Your task to perform on an android device: open app "Gboard" Image 0: 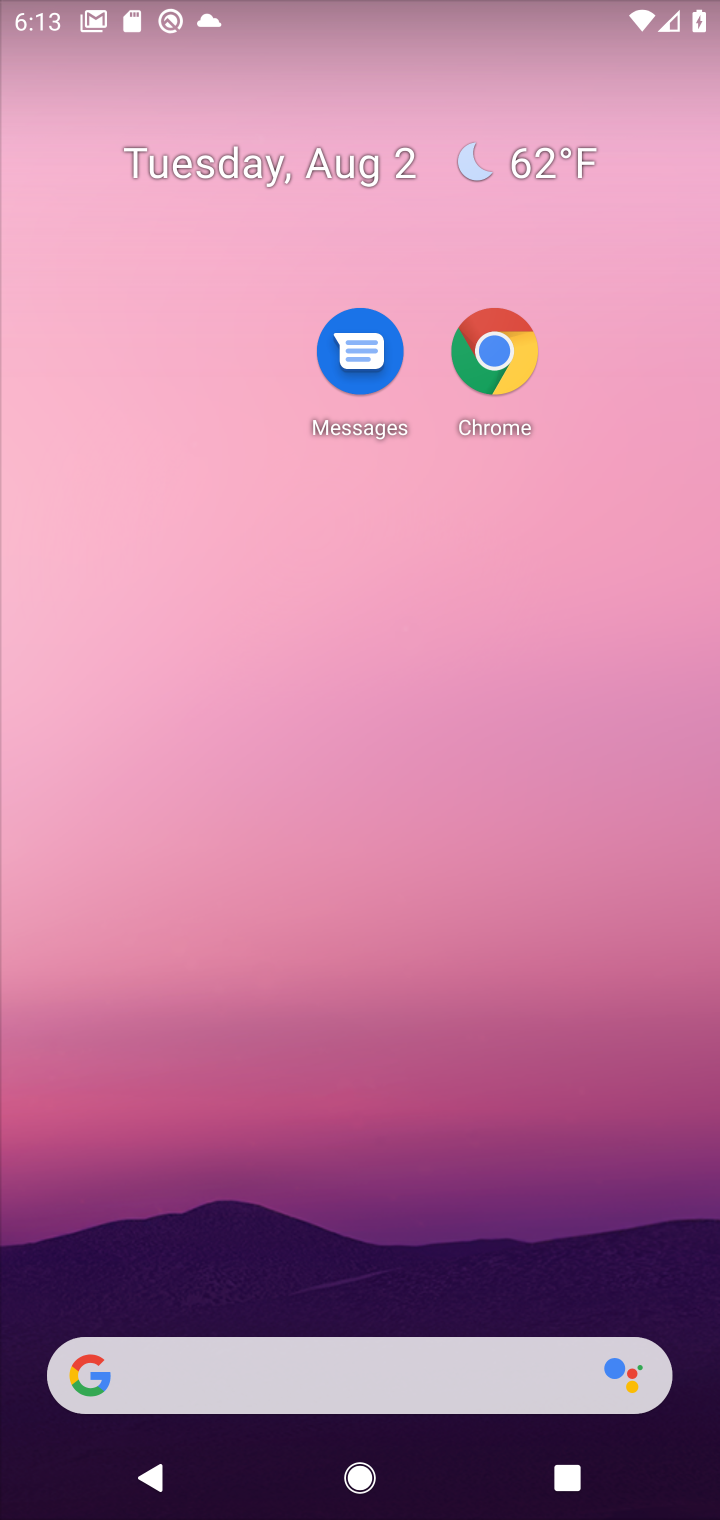
Step 0: drag from (322, 1233) to (664, 233)
Your task to perform on an android device: open app "Gboard" Image 1: 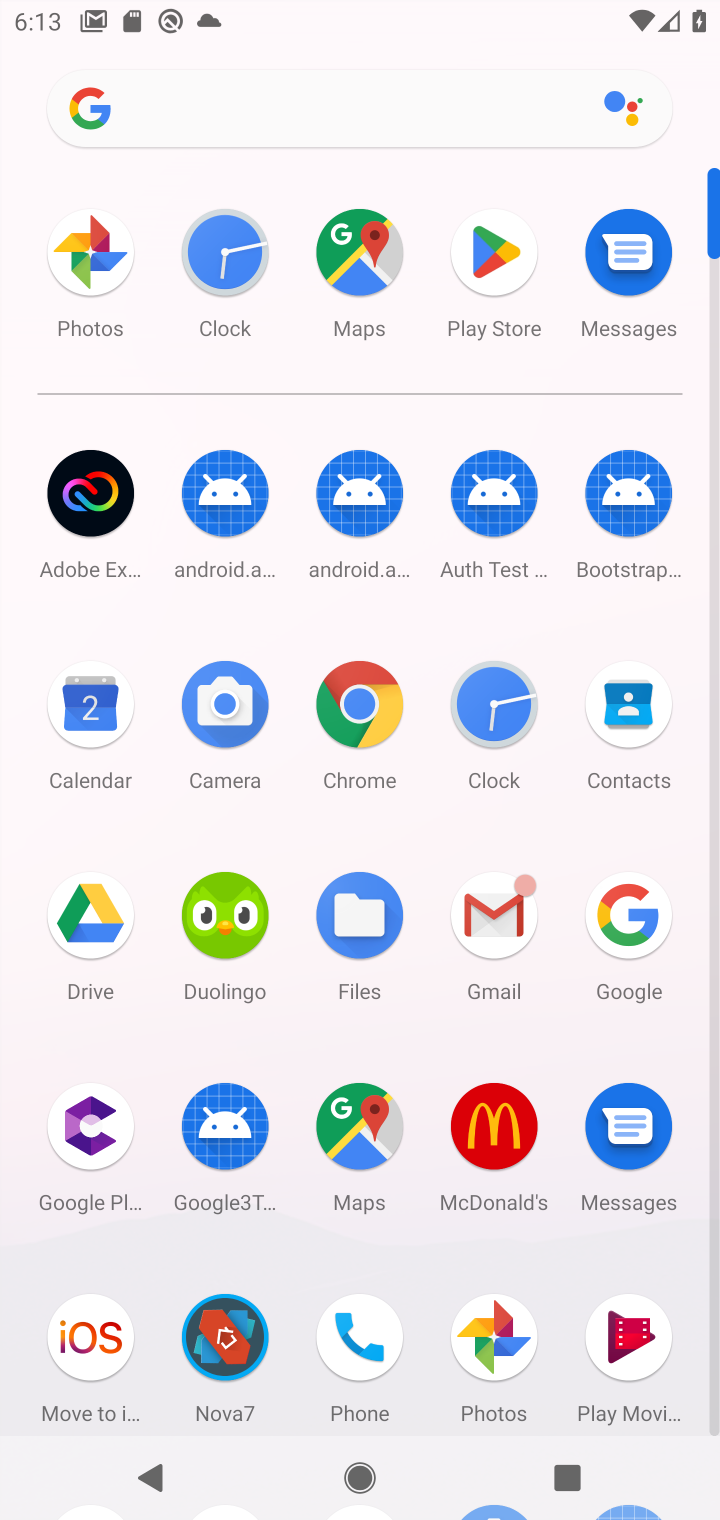
Step 1: click (491, 249)
Your task to perform on an android device: open app "Gboard" Image 2: 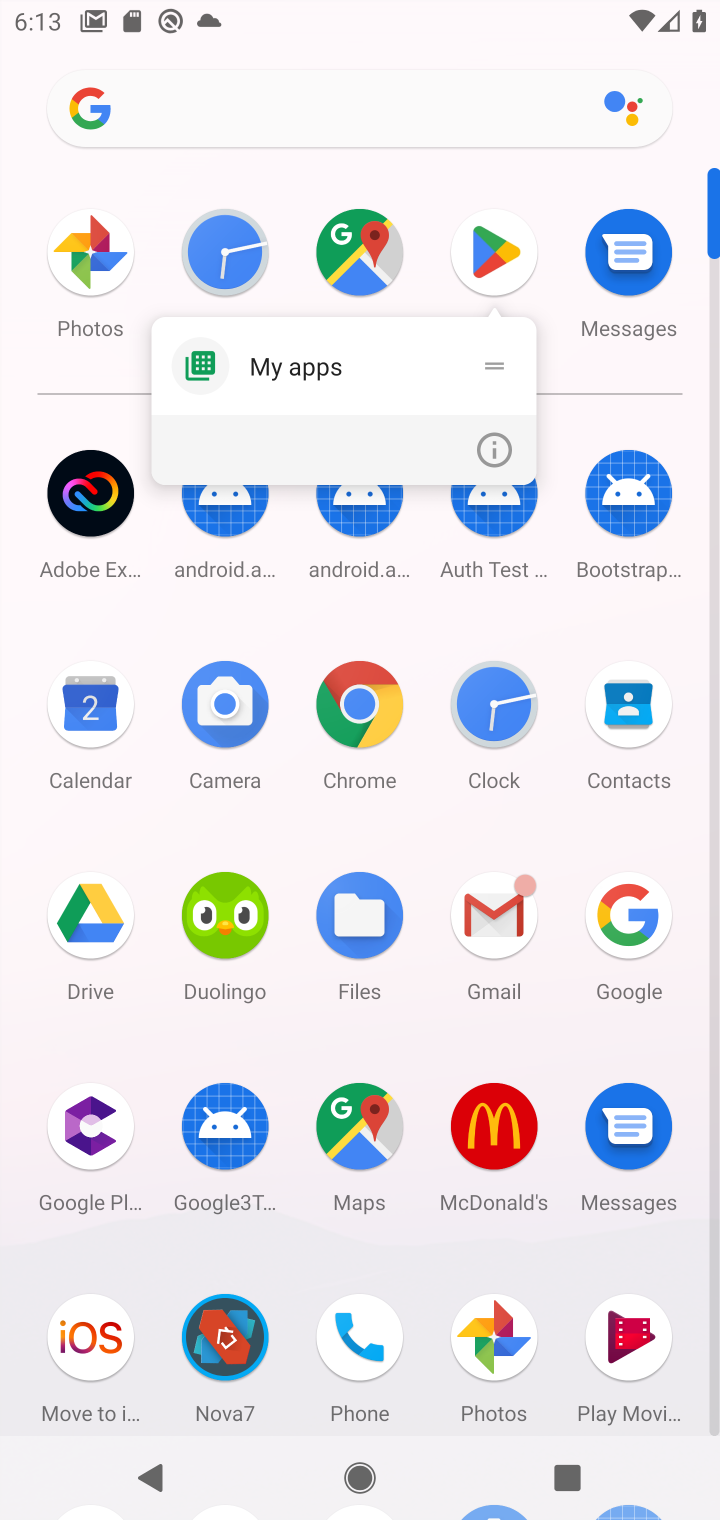
Step 2: click (499, 431)
Your task to perform on an android device: open app "Gboard" Image 3: 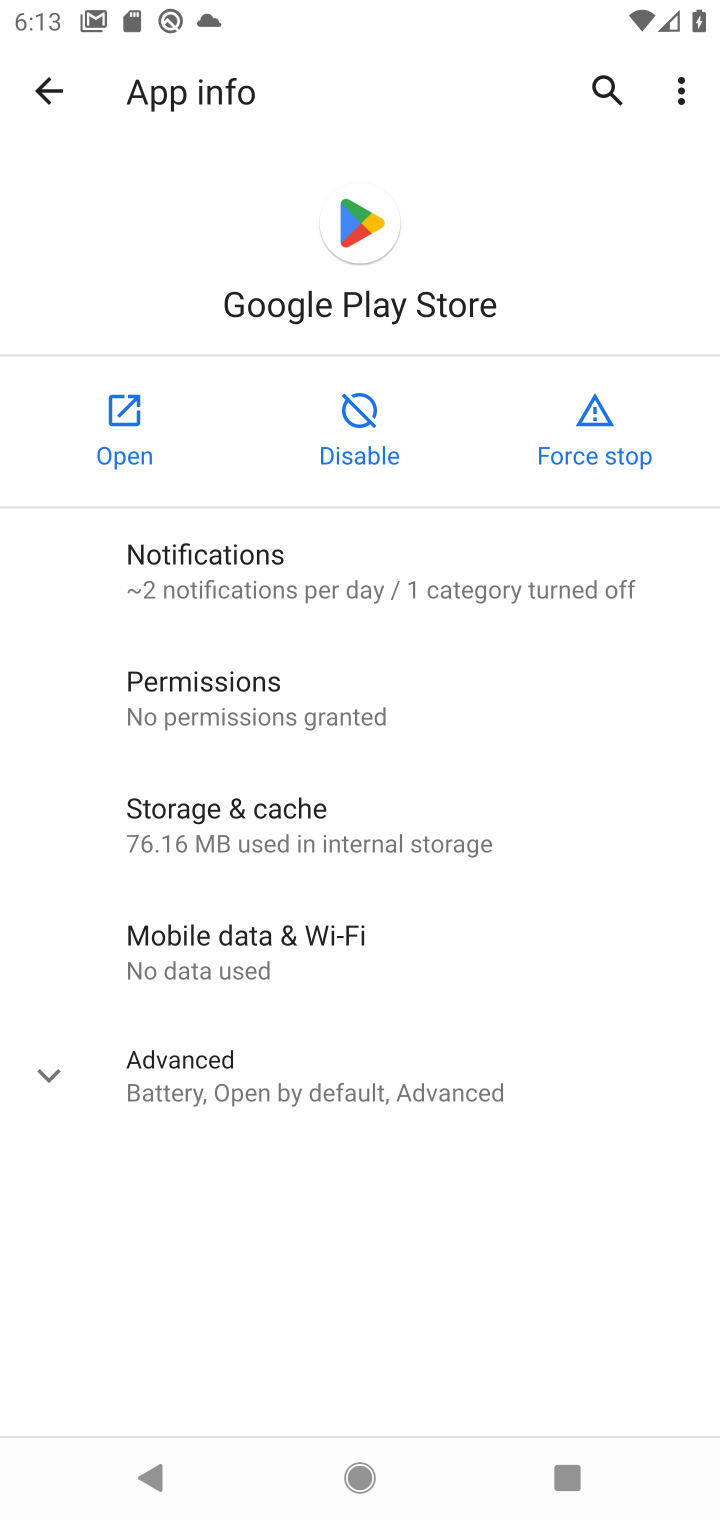
Step 3: click (111, 419)
Your task to perform on an android device: open app "Gboard" Image 4: 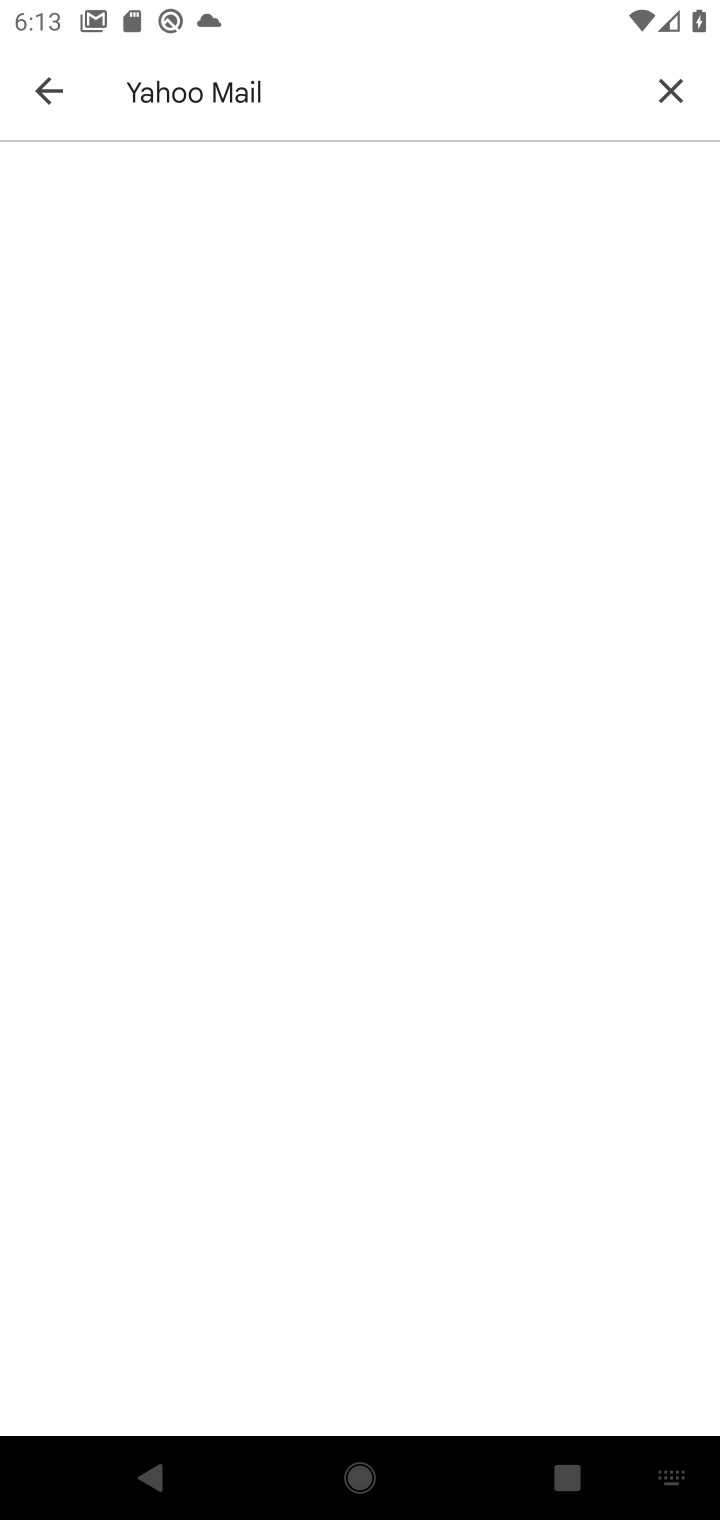
Step 4: drag from (354, 1072) to (478, 283)
Your task to perform on an android device: open app "Gboard" Image 5: 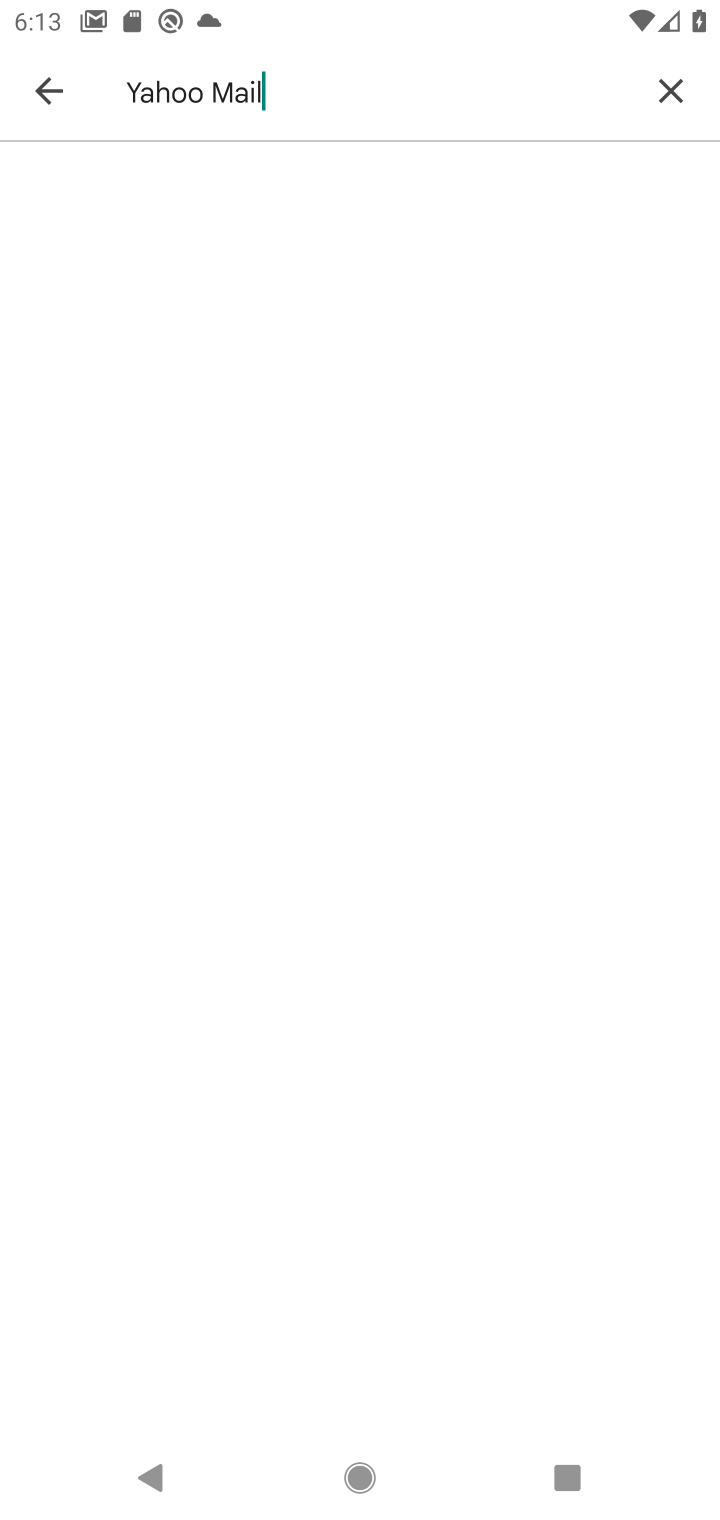
Step 5: drag from (386, 340) to (342, 758)
Your task to perform on an android device: open app "Gboard" Image 6: 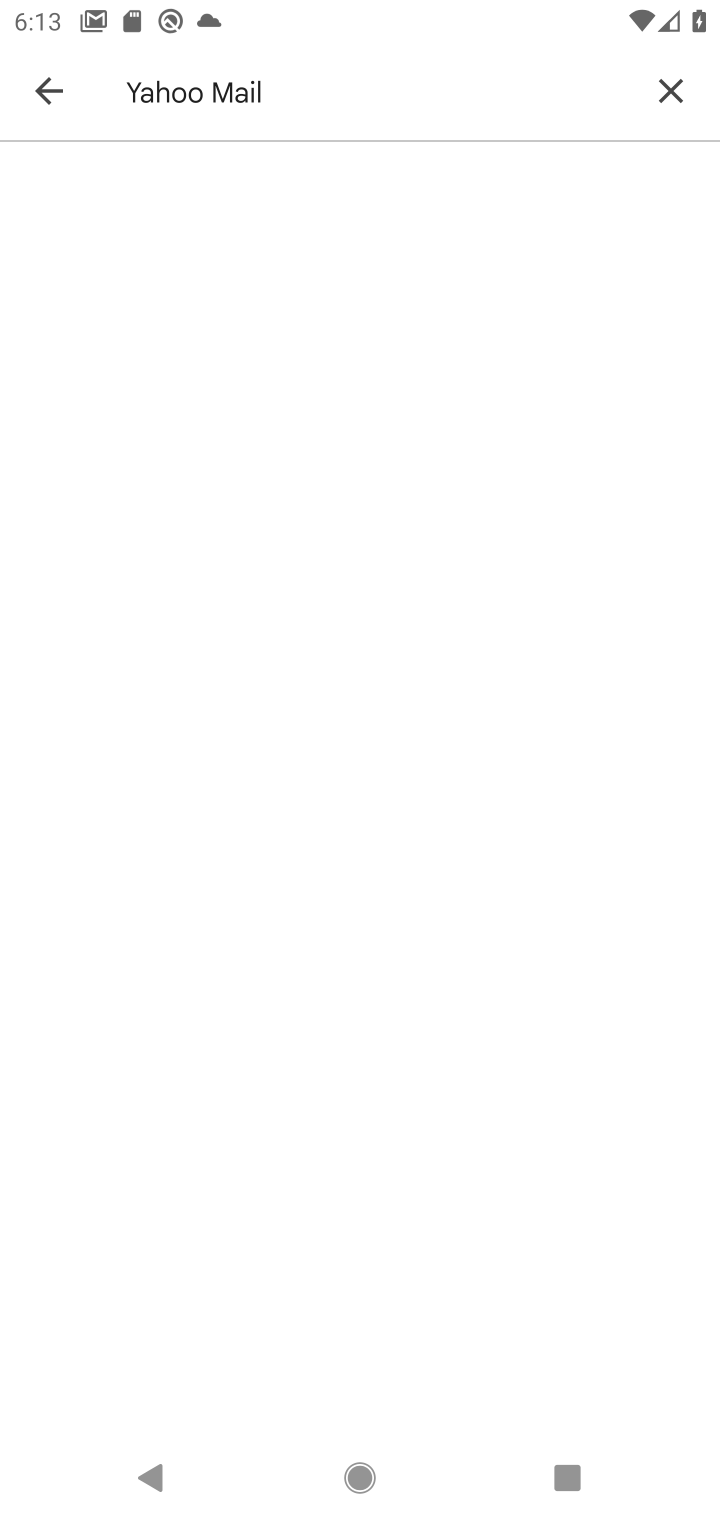
Step 6: press home button
Your task to perform on an android device: open app "Gboard" Image 7: 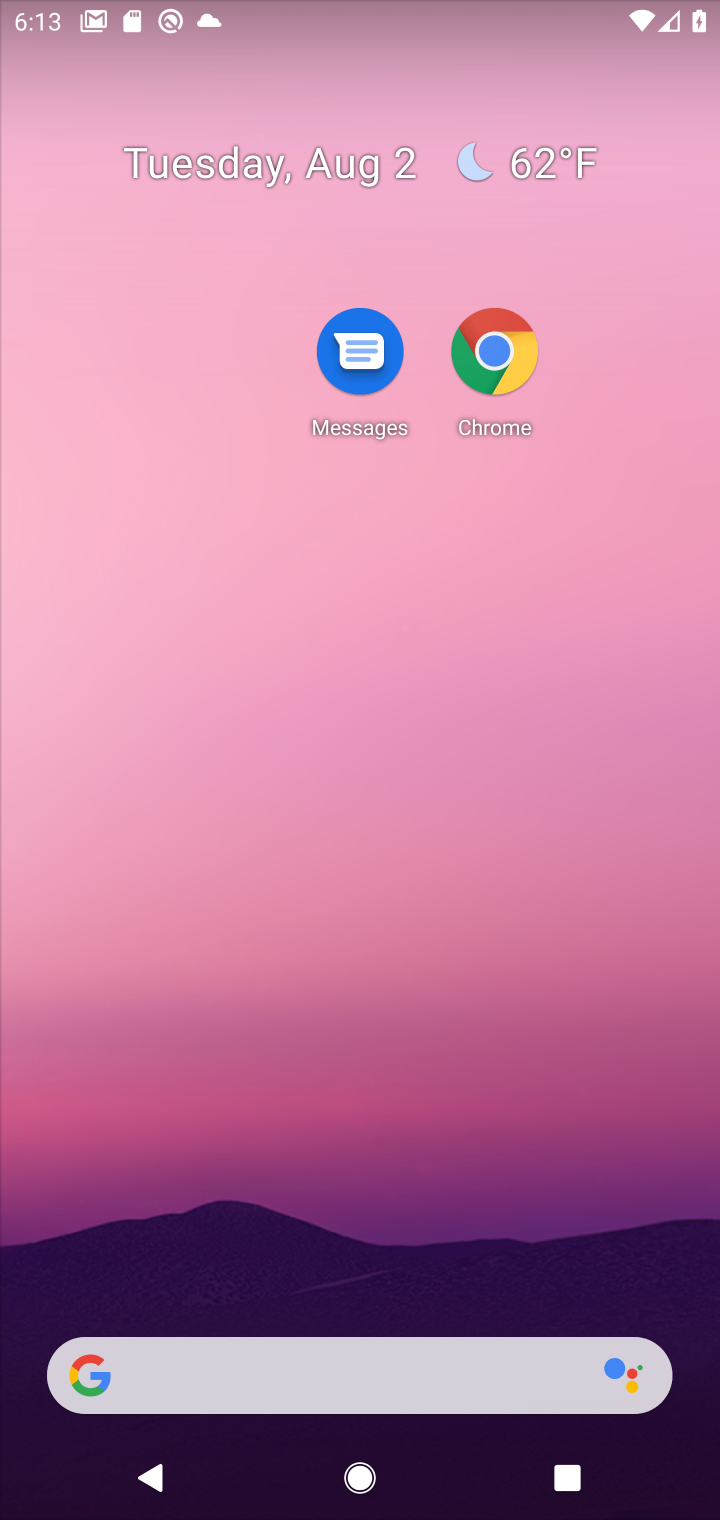
Step 7: drag from (267, 994) to (310, 0)
Your task to perform on an android device: open app "Gboard" Image 8: 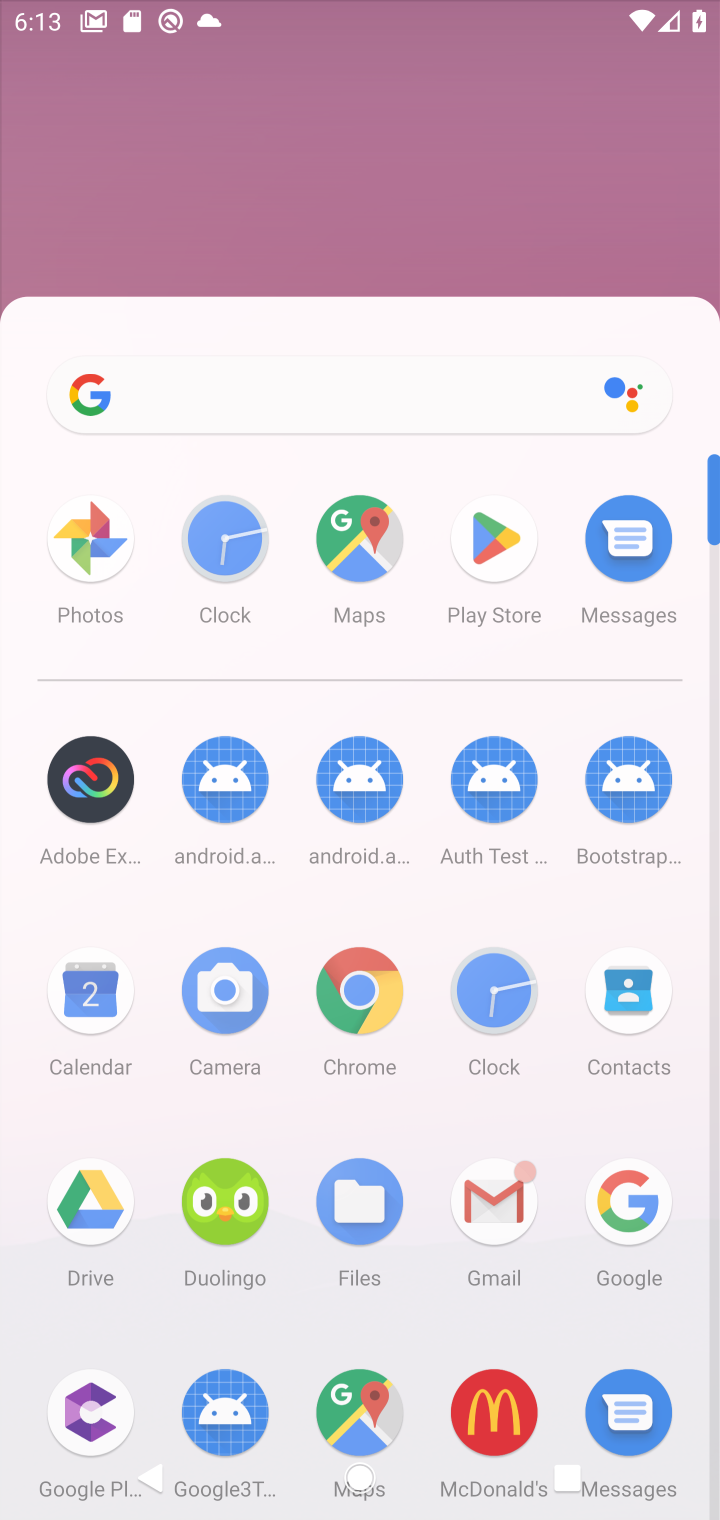
Step 8: drag from (309, 1134) to (305, 17)
Your task to perform on an android device: open app "Gboard" Image 9: 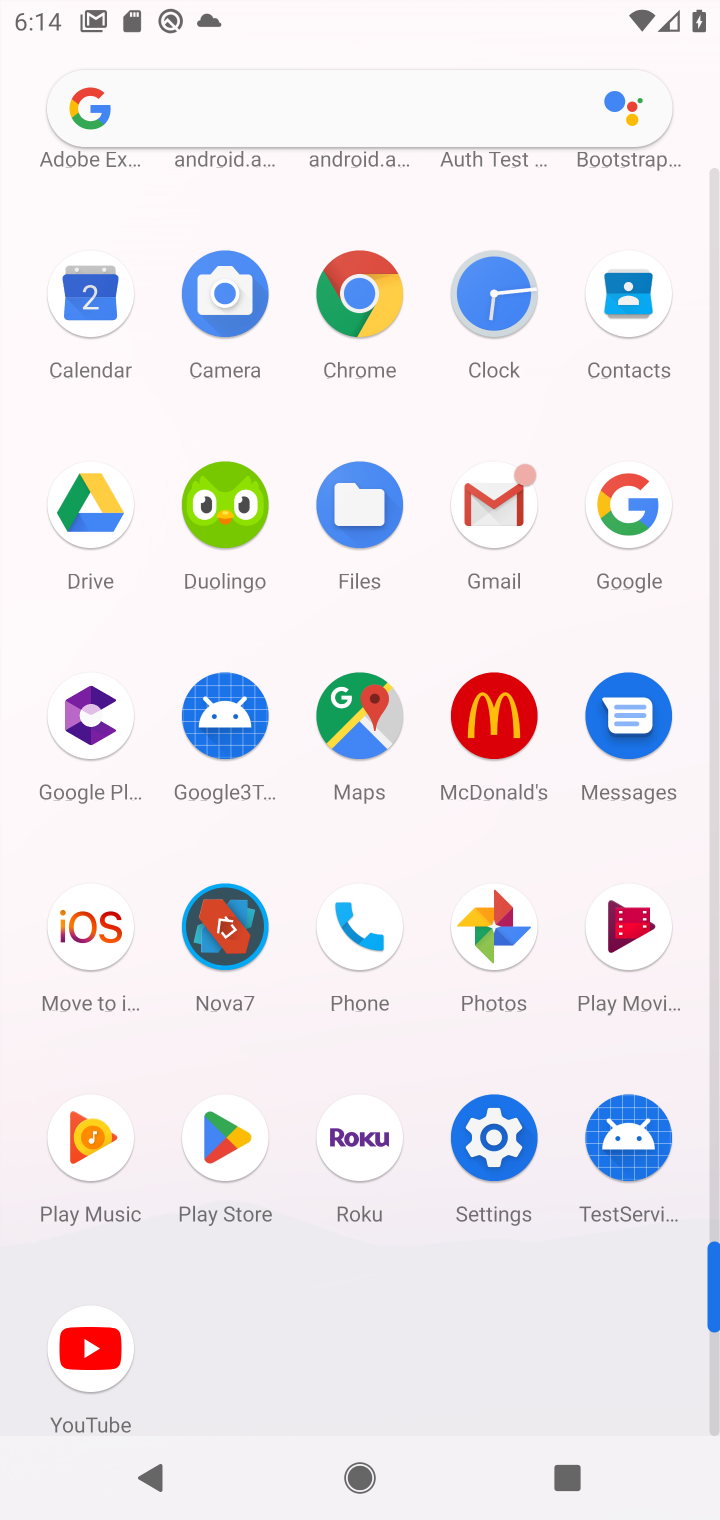
Step 9: click (201, 1149)
Your task to perform on an android device: open app "Gboard" Image 10: 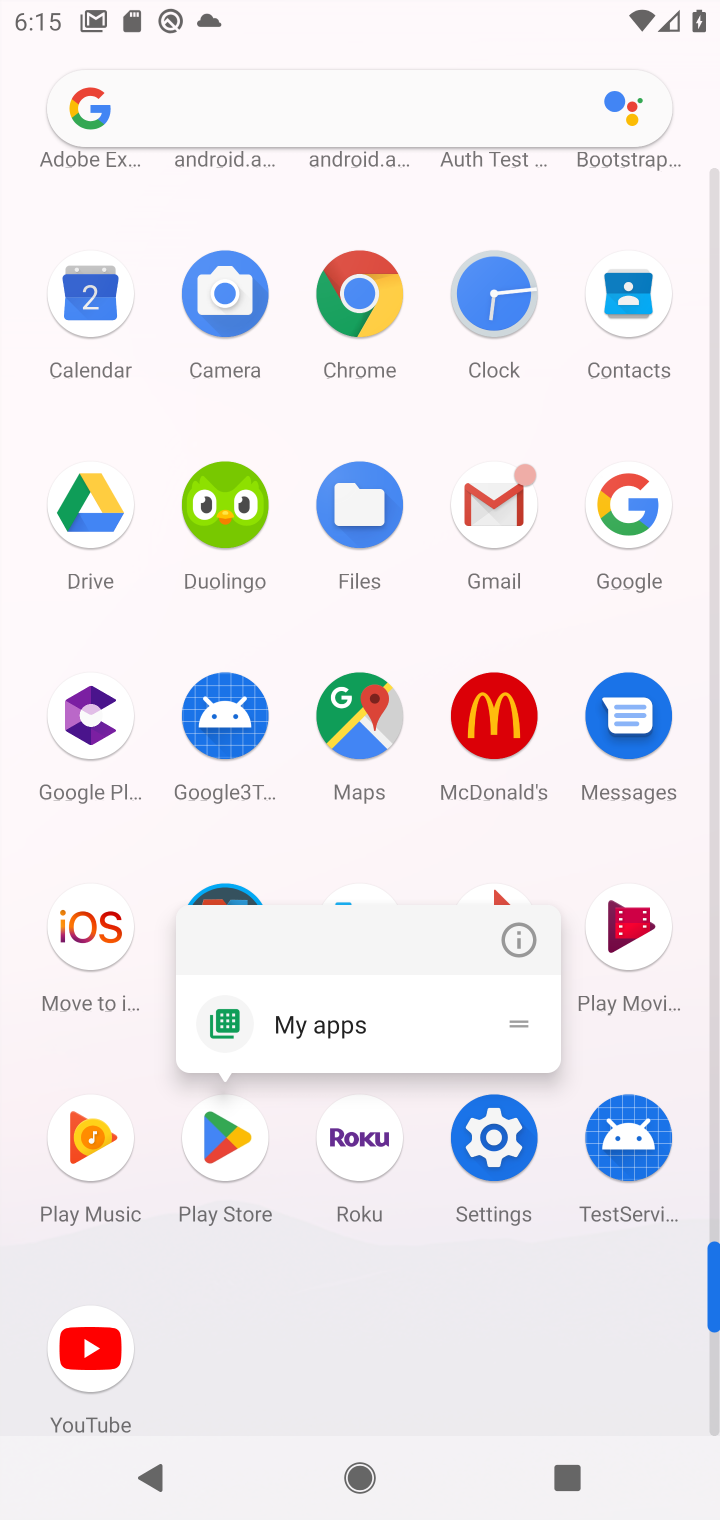
Step 10: click (541, 935)
Your task to perform on an android device: open app "Gboard" Image 11: 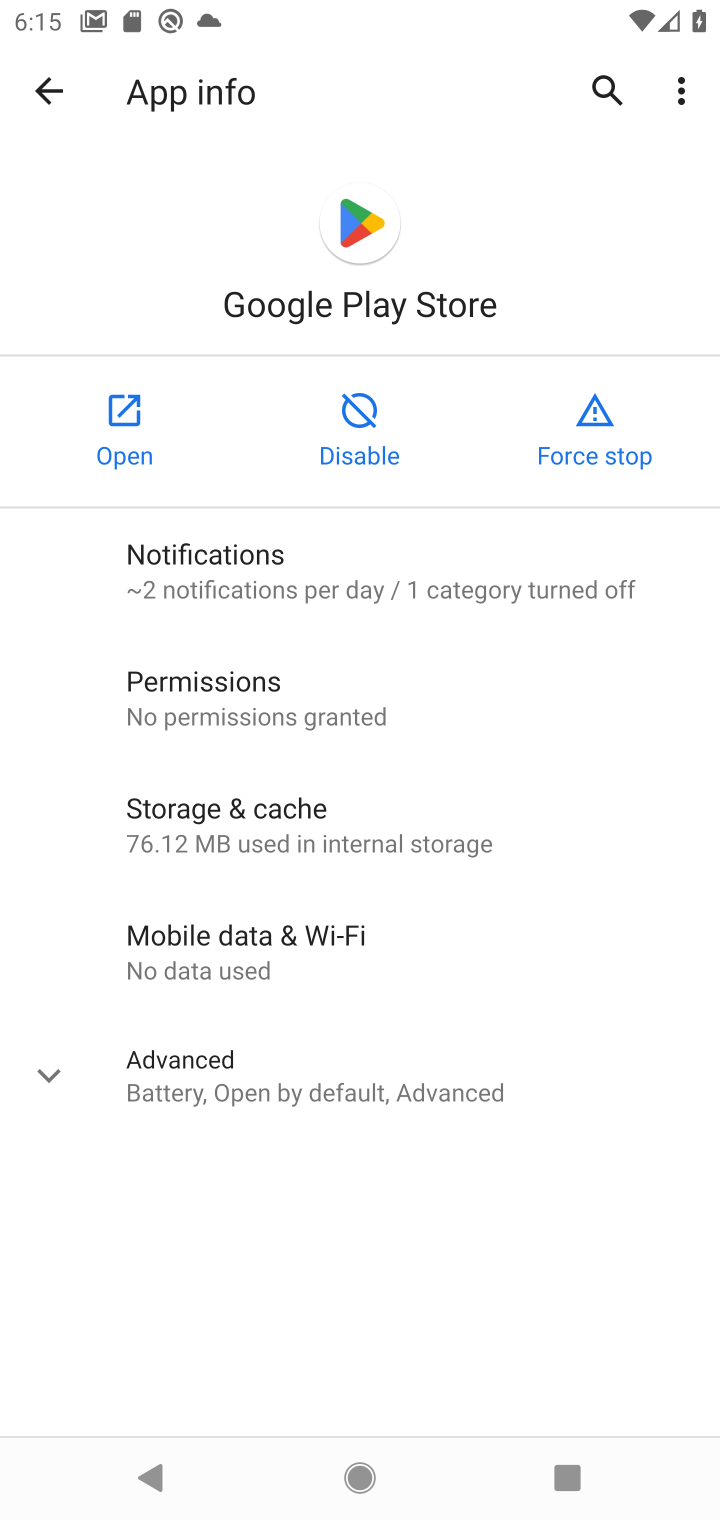
Step 11: click (117, 439)
Your task to perform on an android device: open app "Gboard" Image 12: 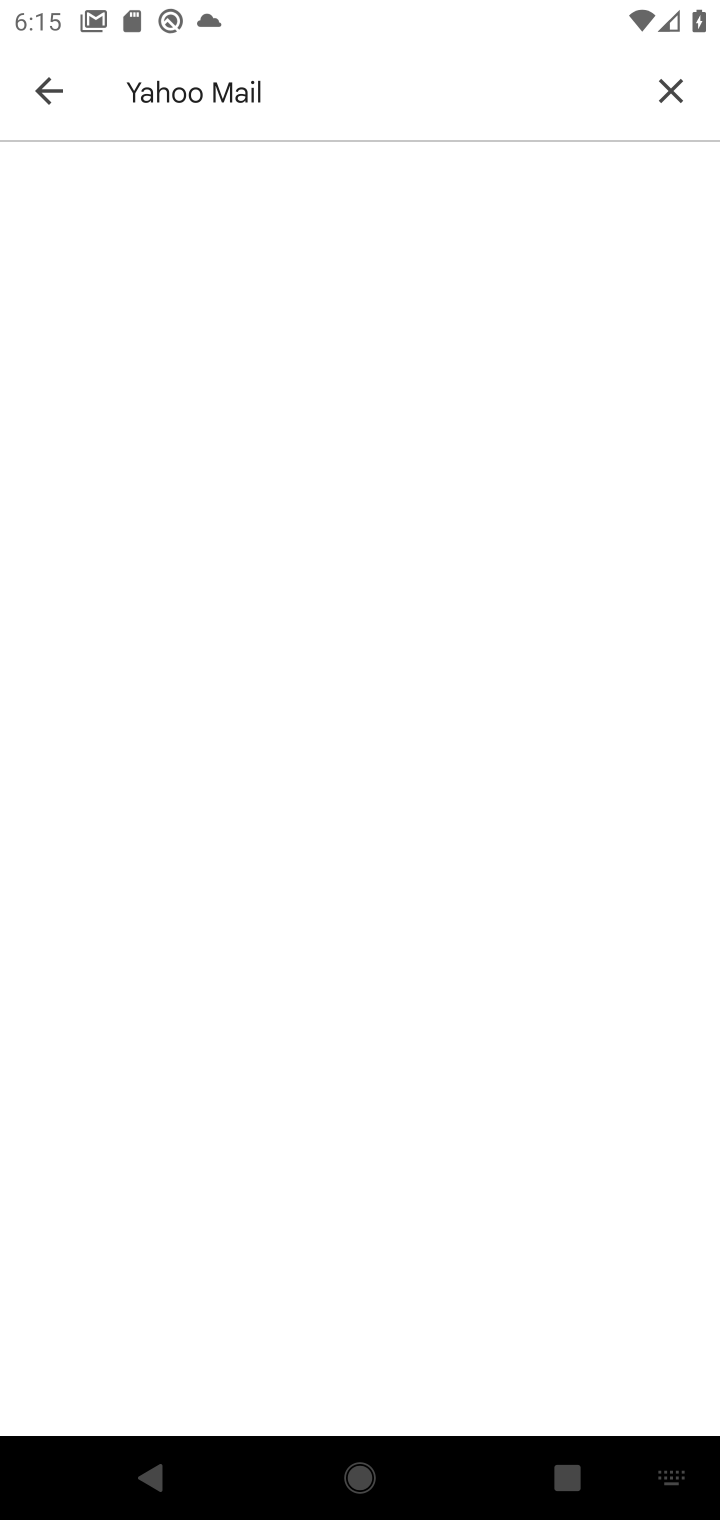
Step 12: click (642, 90)
Your task to perform on an android device: open app "Gboard" Image 13: 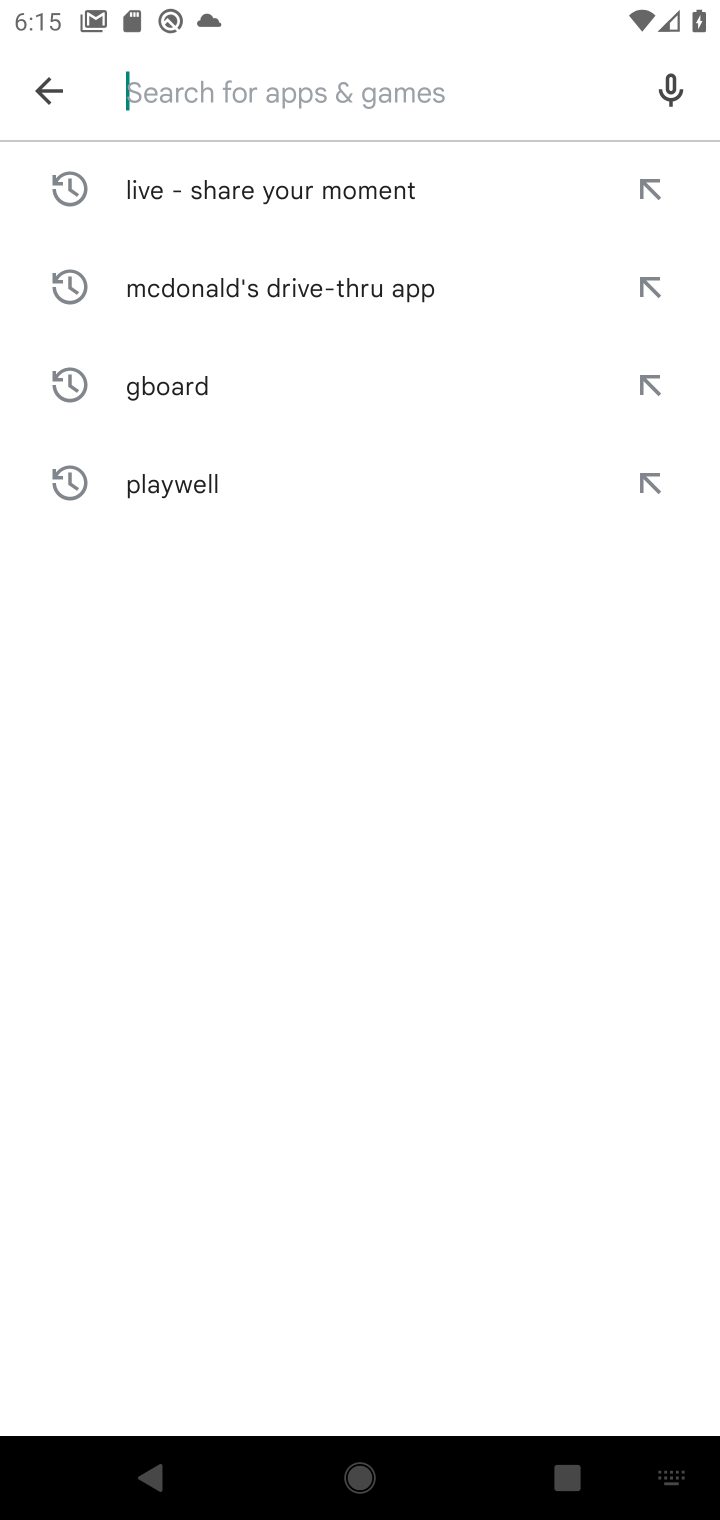
Step 13: click (238, 107)
Your task to perform on an android device: open app "Gboard" Image 14: 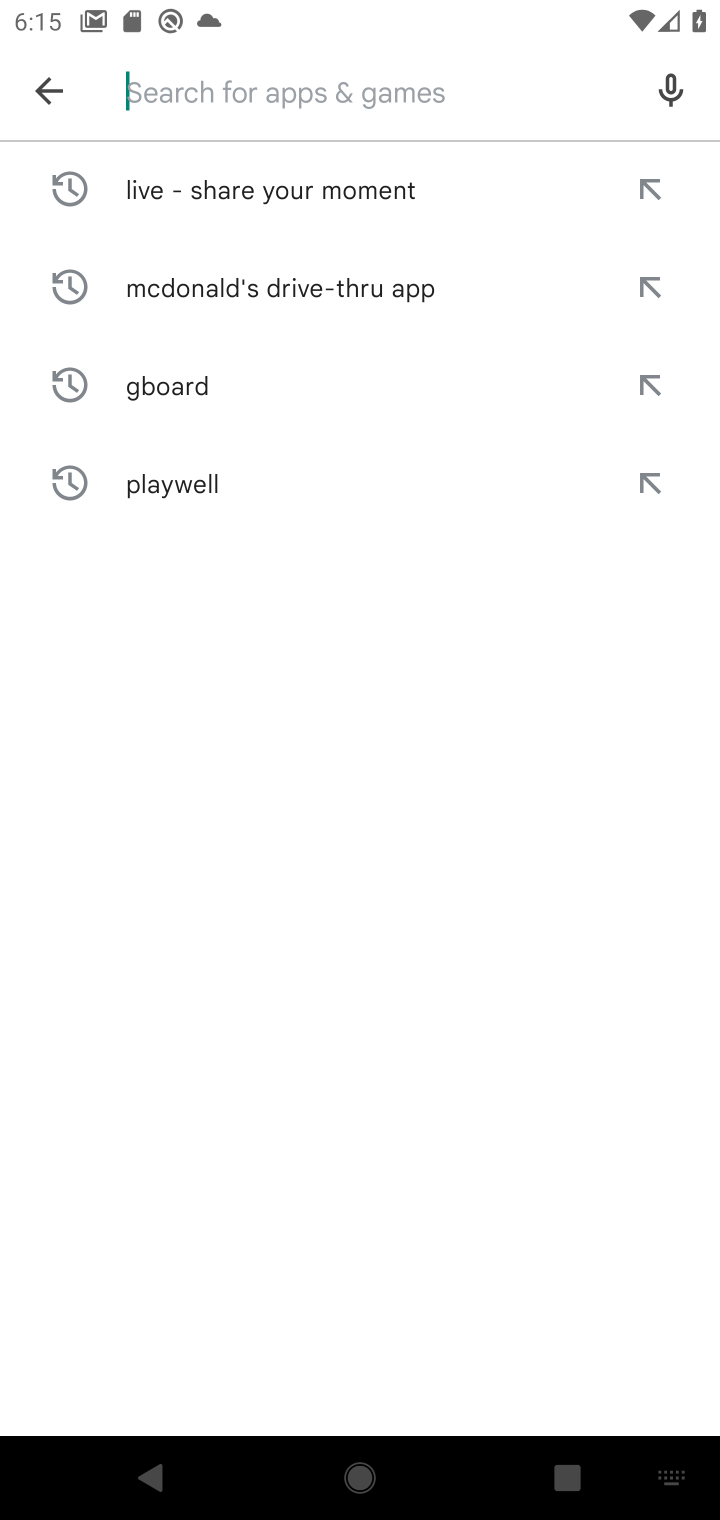
Step 14: type "Gboard"
Your task to perform on an android device: open app "Gboard" Image 15: 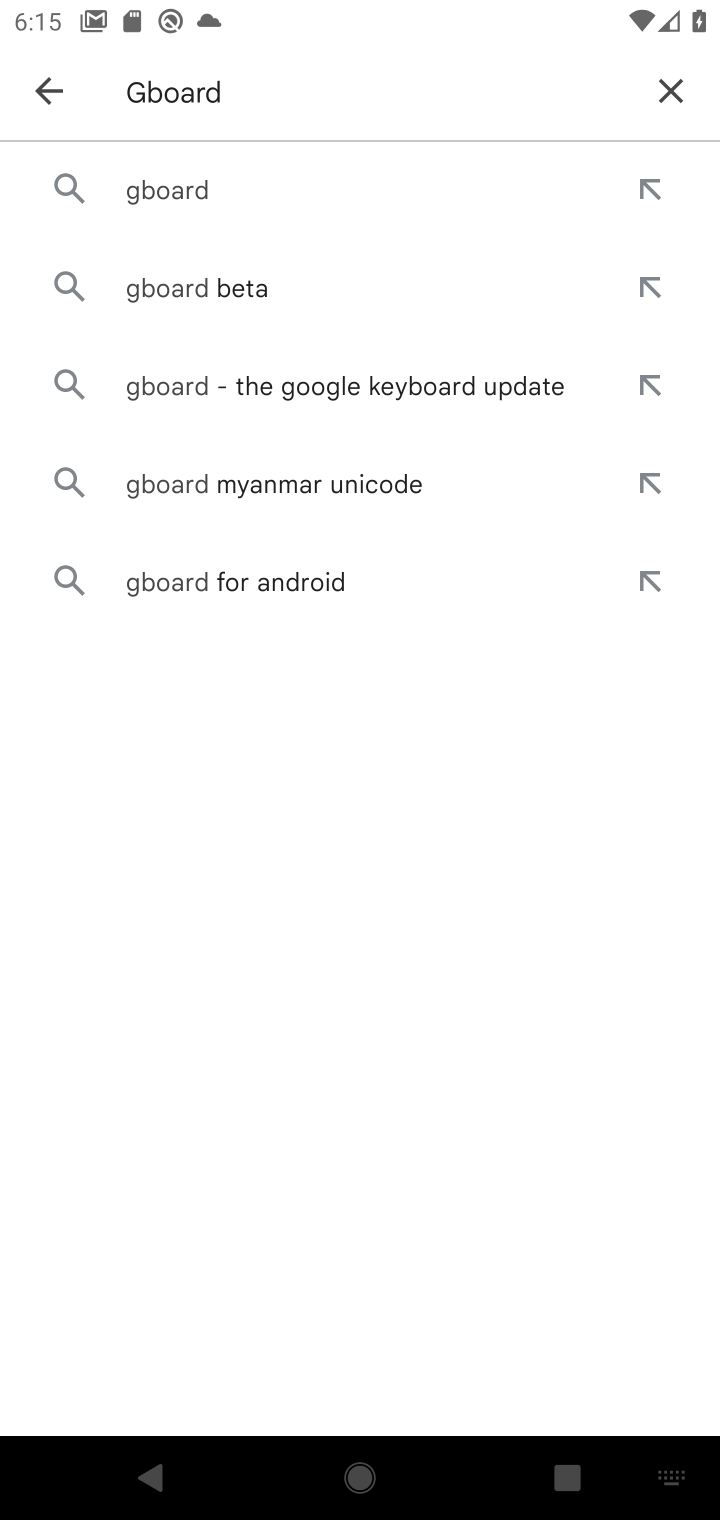
Step 15: click (179, 184)
Your task to perform on an android device: open app "Gboard" Image 16: 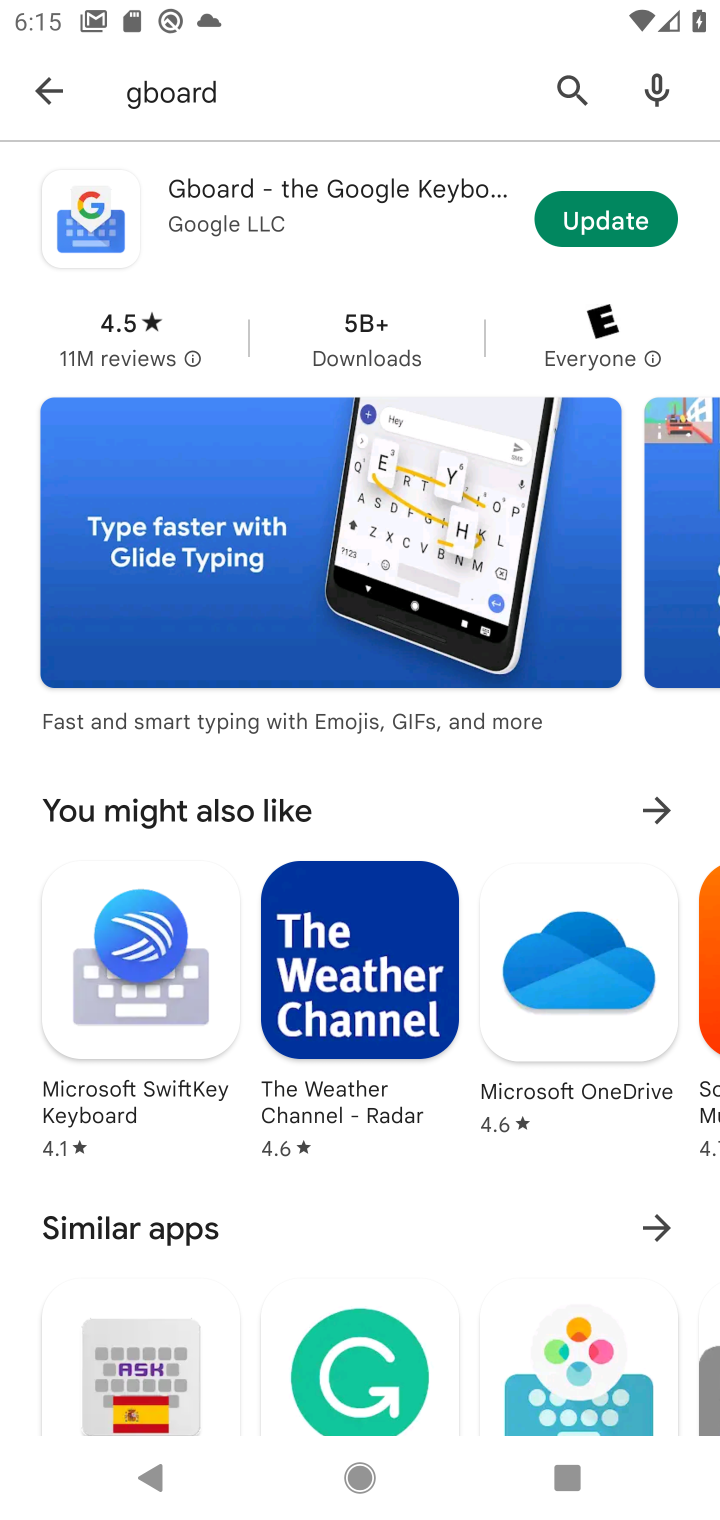
Step 16: click (175, 190)
Your task to perform on an android device: open app "Gboard" Image 17: 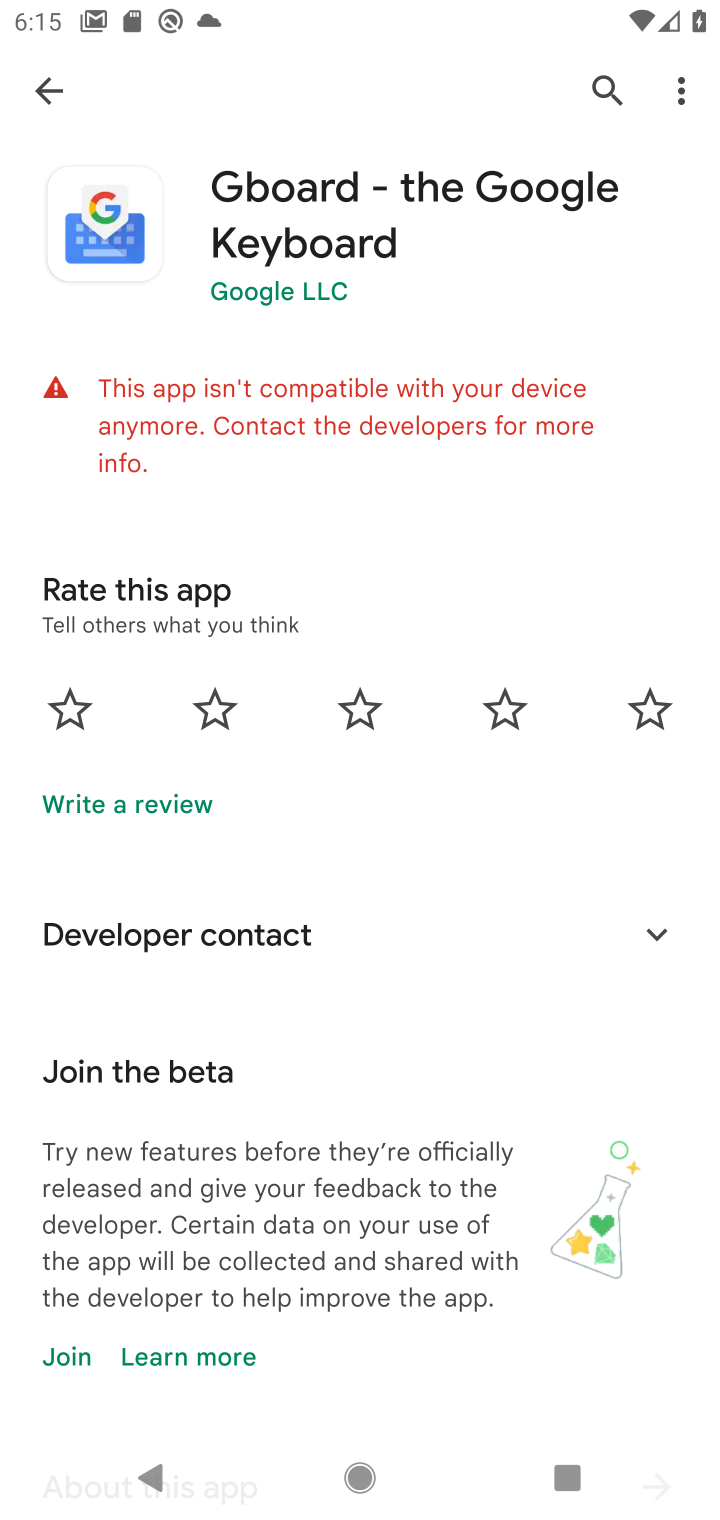
Step 17: drag from (392, 260) to (503, 1183)
Your task to perform on an android device: open app "Gboard" Image 18: 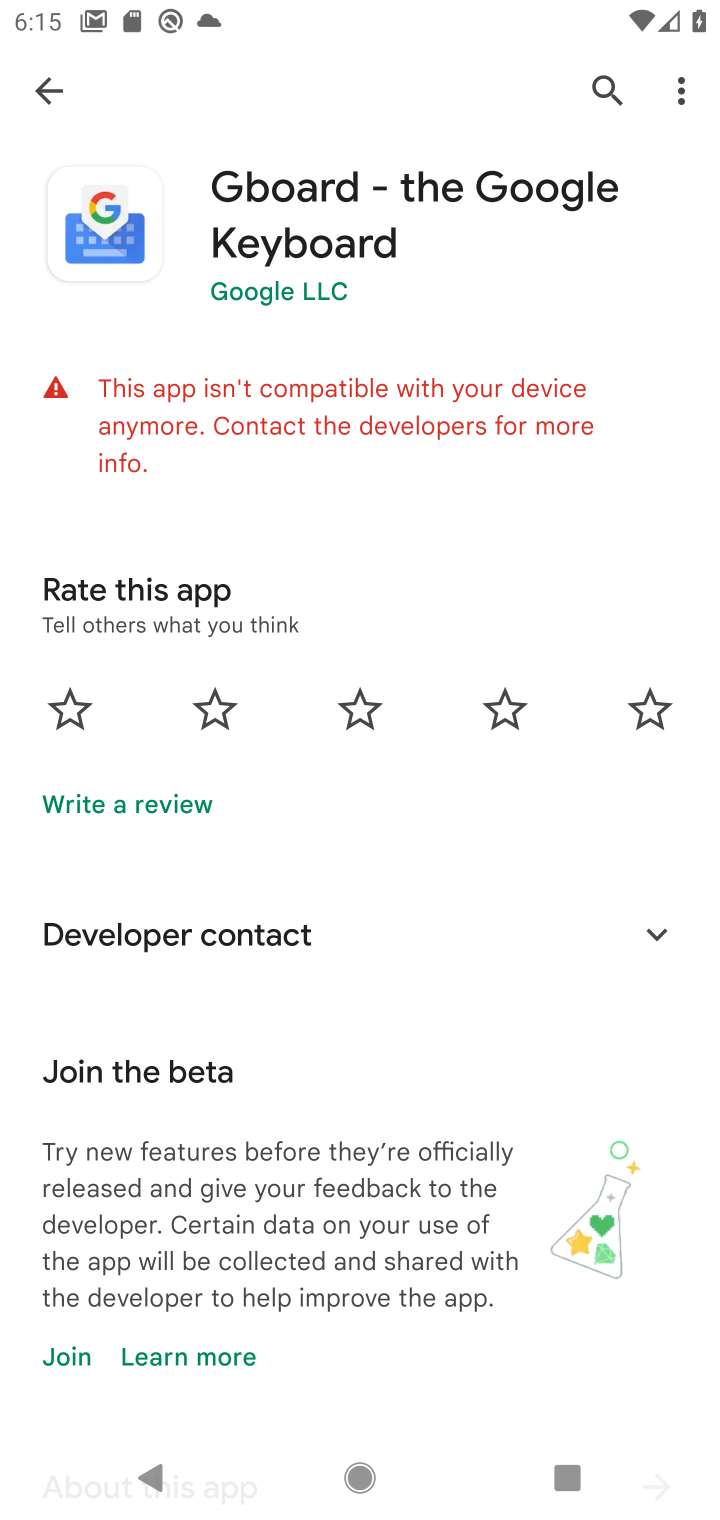
Step 18: drag from (363, 276) to (404, 1002)
Your task to perform on an android device: open app "Gboard" Image 19: 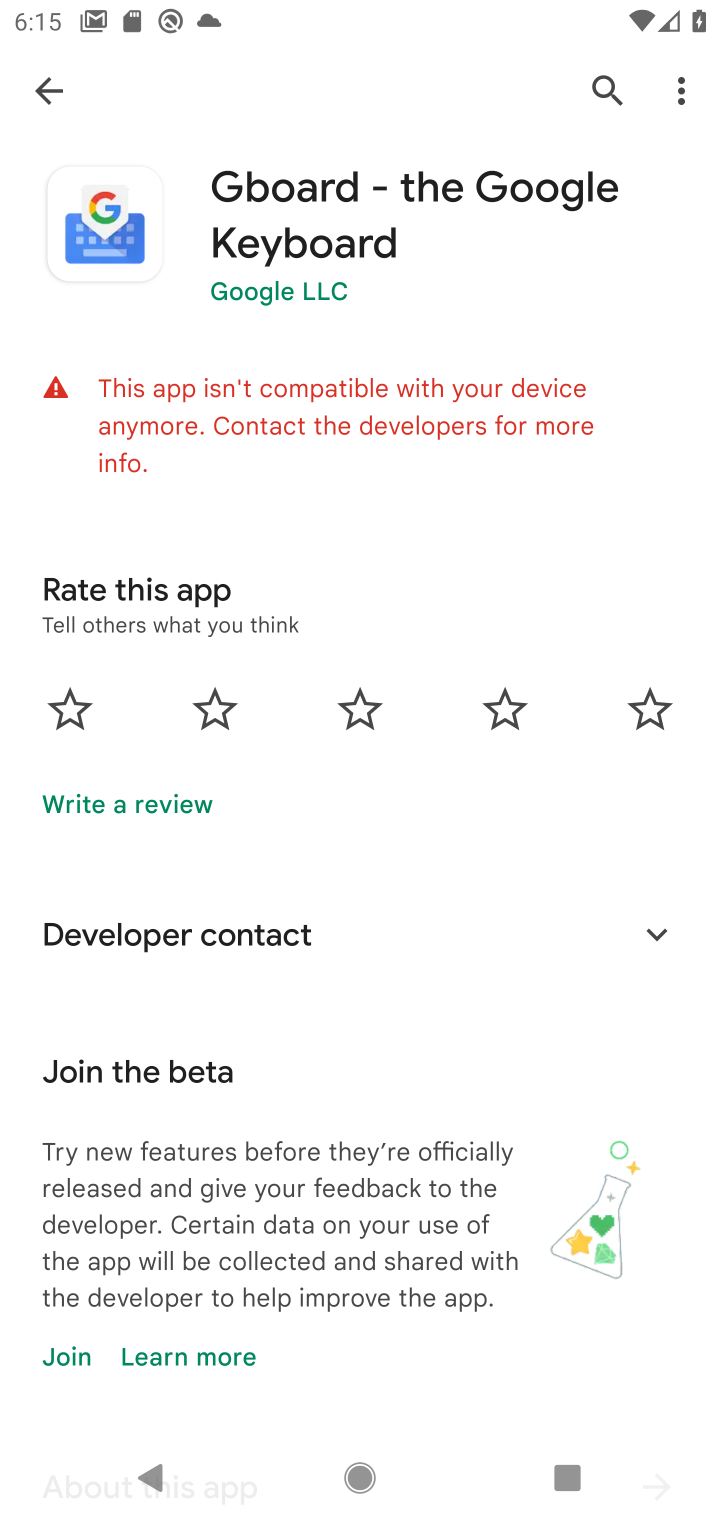
Step 19: click (195, 226)
Your task to perform on an android device: open app "Gboard" Image 20: 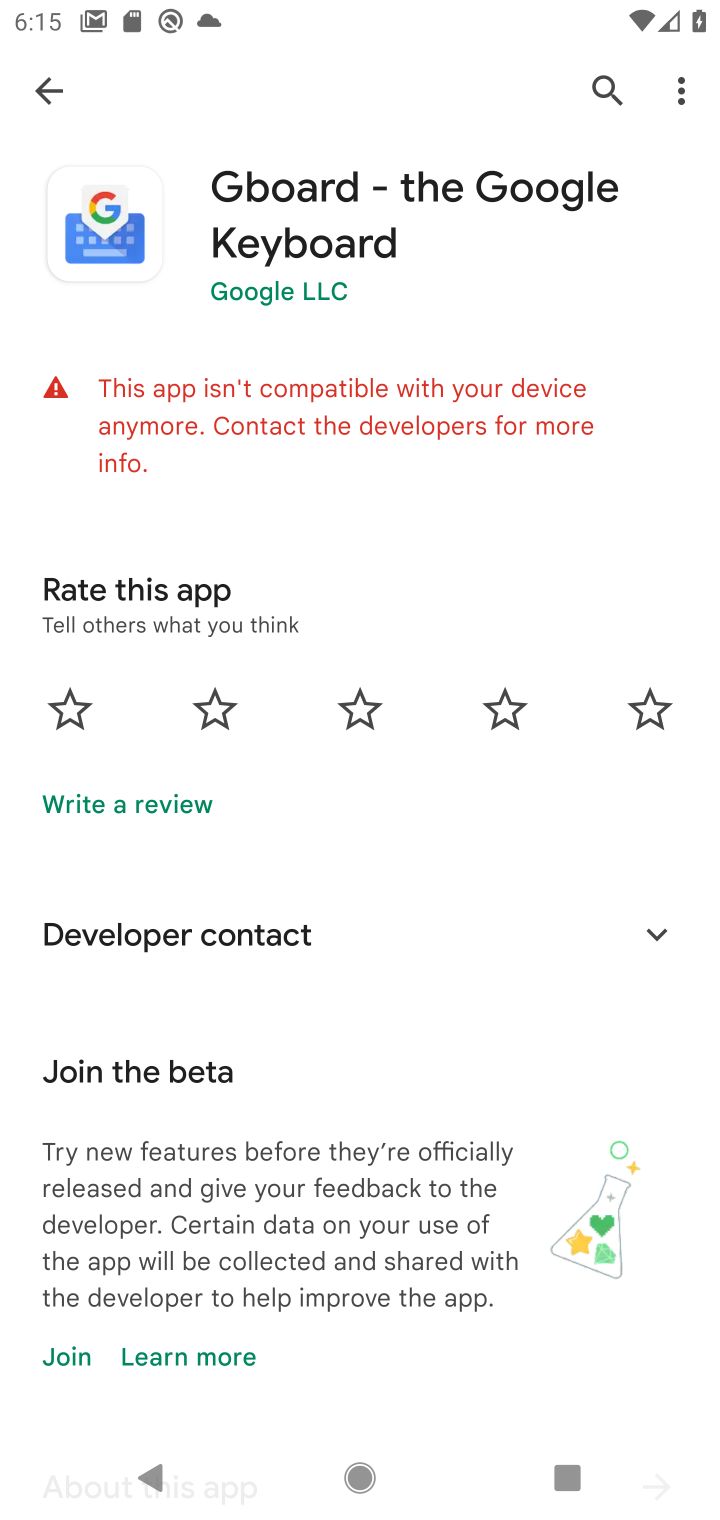
Step 20: click (36, 93)
Your task to perform on an android device: open app "Gboard" Image 21: 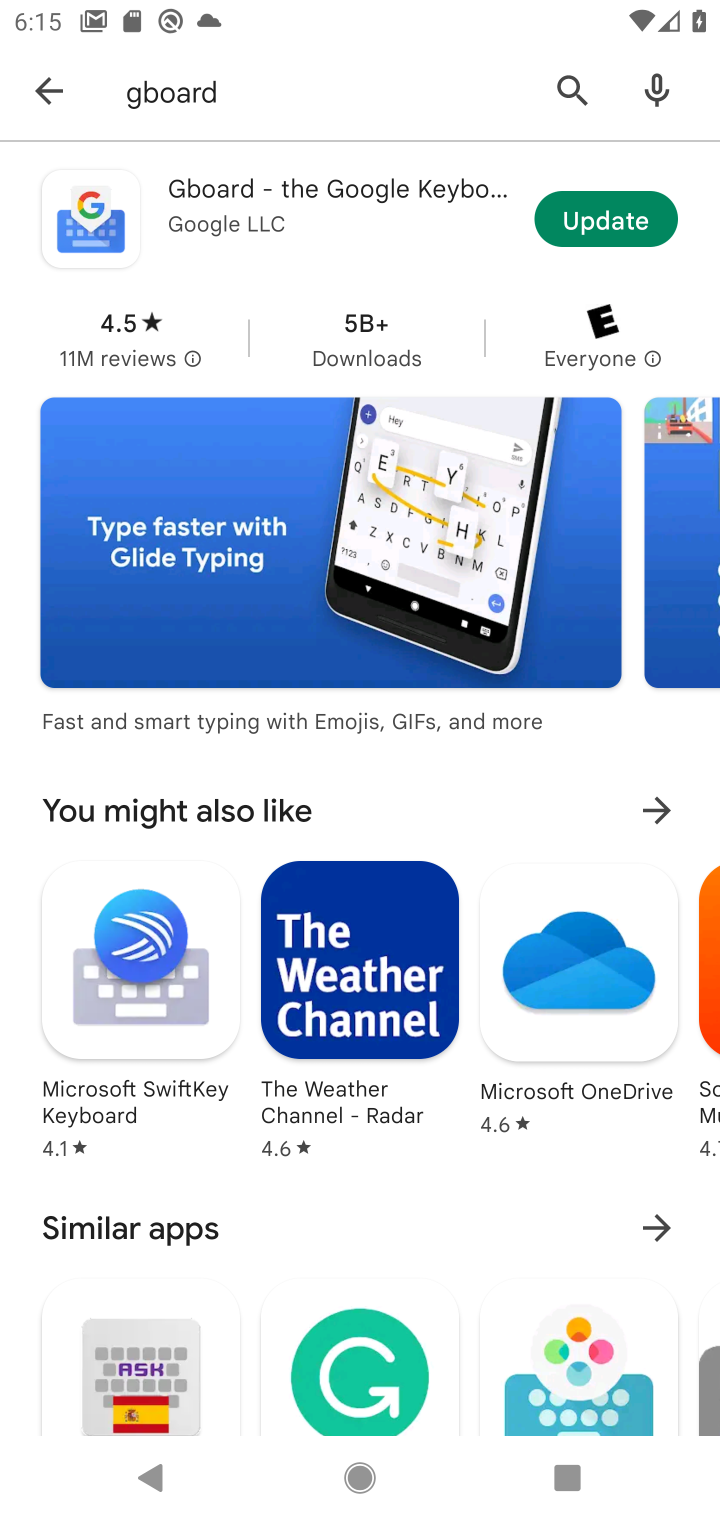
Step 21: click (270, 181)
Your task to perform on an android device: open app "Gboard" Image 22: 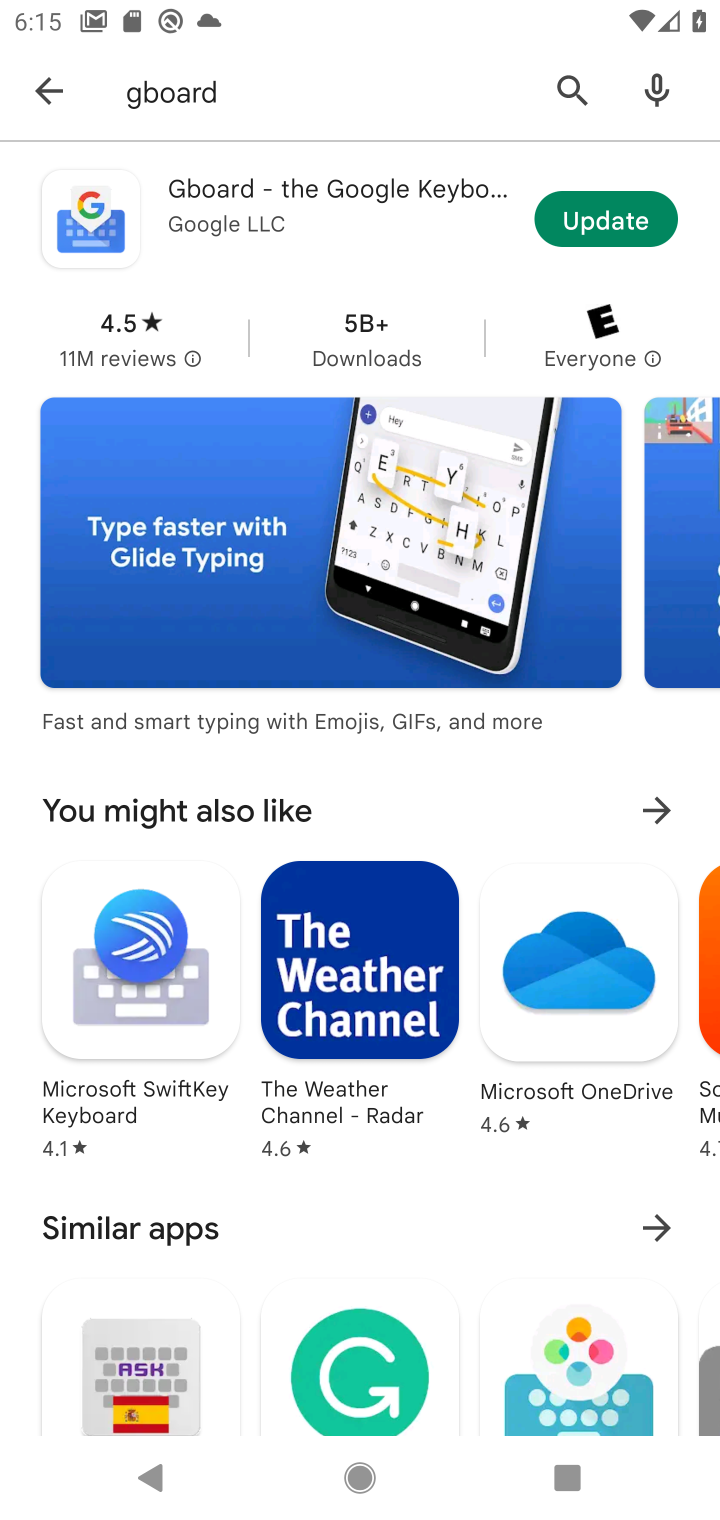
Step 22: task complete